Your task to perform on an android device: Clear all items from cart on newegg. Add razer huntsman to the cart on newegg, then select checkout. Image 0: 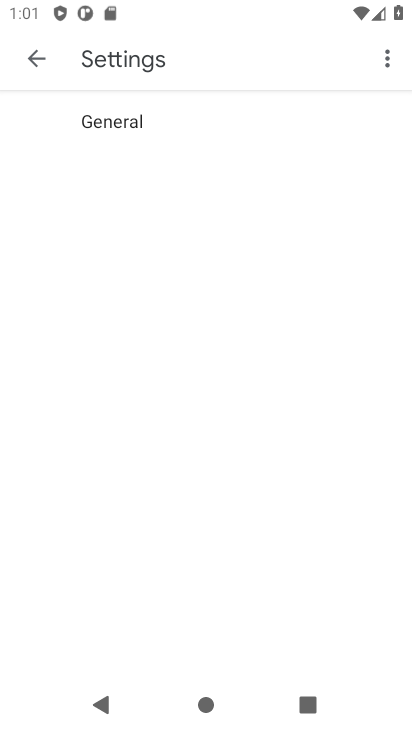
Step 0: press home button
Your task to perform on an android device: Clear all items from cart on newegg. Add razer huntsman to the cart on newegg, then select checkout. Image 1: 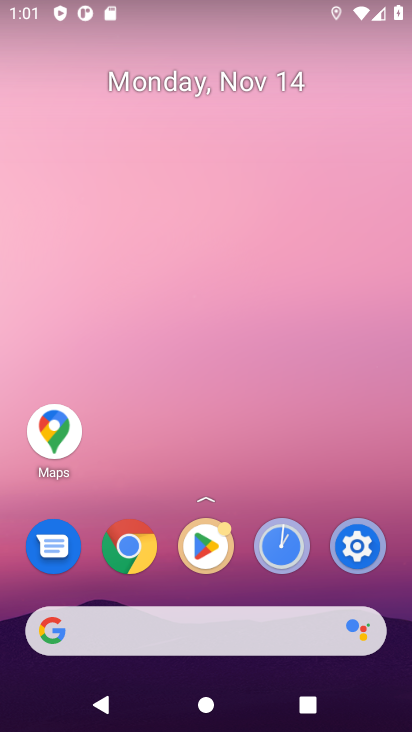
Step 1: drag from (117, 529) to (202, 0)
Your task to perform on an android device: Clear all items from cart on newegg. Add razer huntsman to the cart on newegg, then select checkout. Image 2: 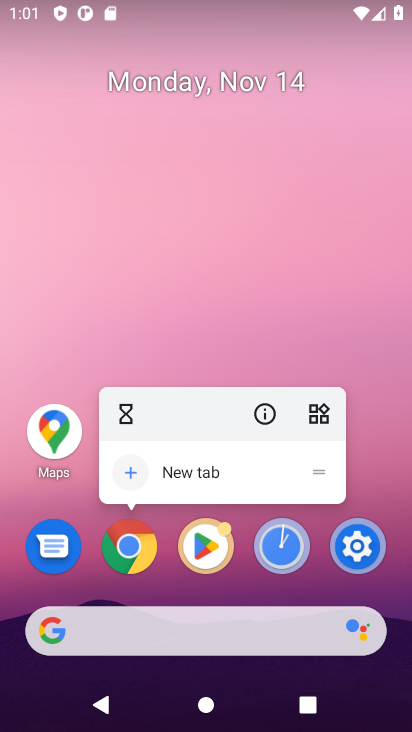
Step 2: click (252, 256)
Your task to perform on an android device: Clear all items from cart on newegg. Add razer huntsman to the cart on newegg, then select checkout. Image 3: 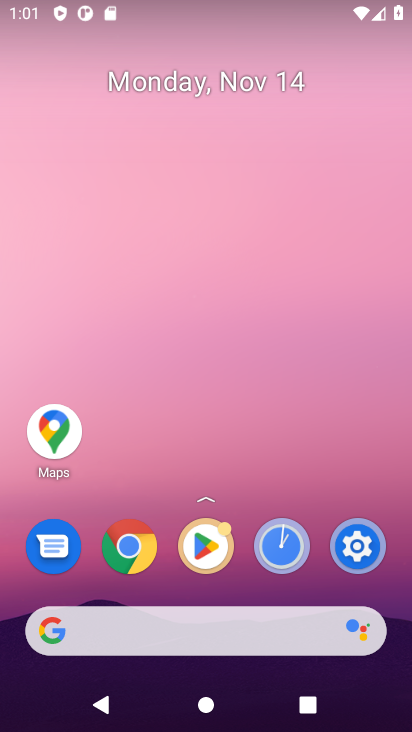
Step 3: drag from (183, 537) to (246, 3)
Your task to perform on an android device: Clear all items from cart on newegg. Add razer huntsman to the cart on newegg, then select checkout. Image 4: 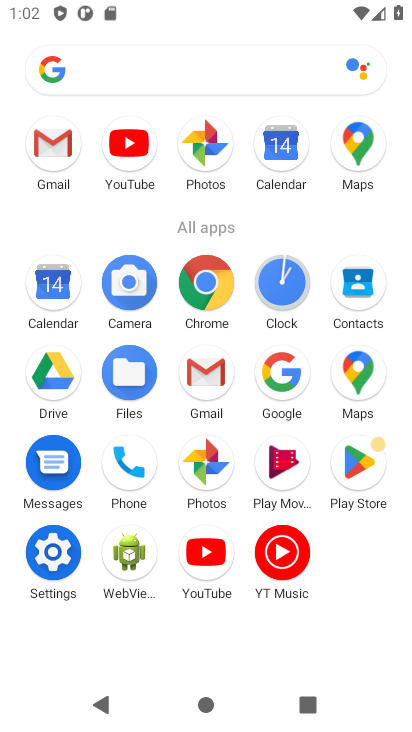
Step 4: click (213, 285)
Your task to perform on an android device: Clear all items from cart on newegg. Add razer huntsman to the cart on newegg, then select checkout. Image 5: 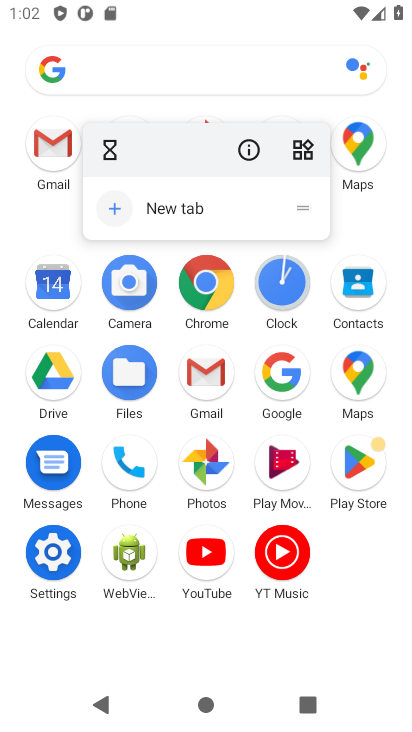
Step 5: click (198, 274)
Your task to perform on an android device: Clear all items from cart on newegg. Add razer huntsman to the cart on newegg, then select checkout. Image 6: 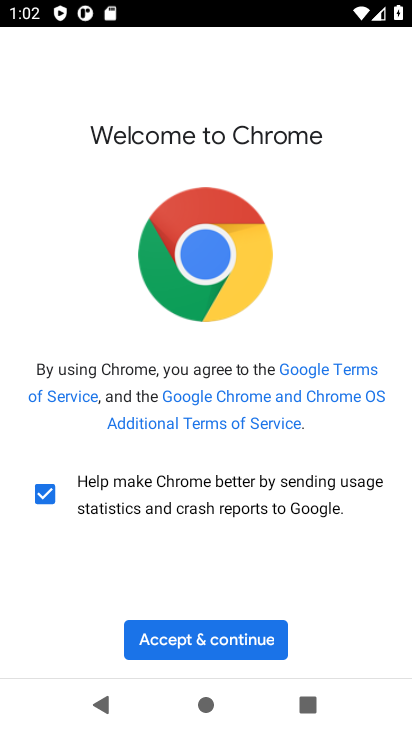
Step 6: click (153, 645)
Your task to perform on an android device: Clear all items from cart on newegg. Add razer huntsman to the cart on newegg, then select checkout. Image 7: 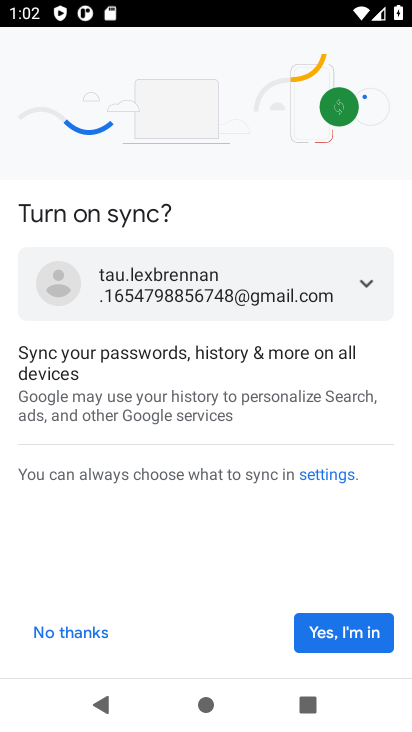
Step 7: click (326, 634)
Your task to perform on an android device: Clear all items from cart on newegg. Add razer huntsman to the cart on newegg, then select checkout. Image 8: 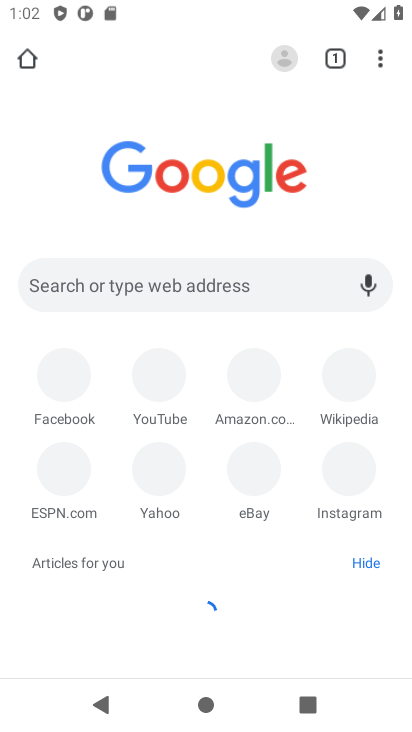
Step 8: click (66, 298)
Your task to perform on an android device: Clear all items from cart on newegg. Add razer huntsman to the cart on newegg, then select checkout. Image 9: 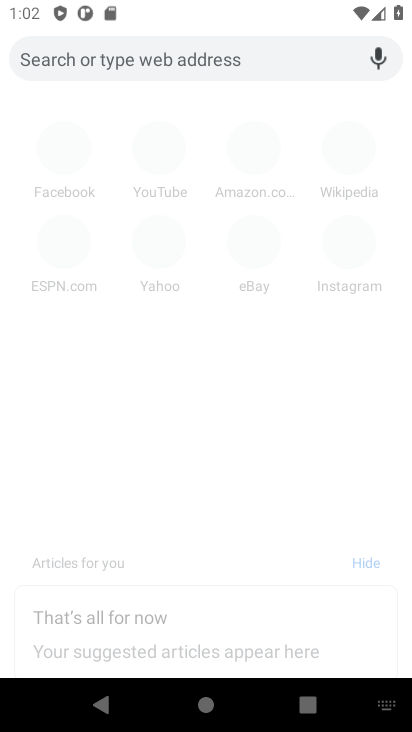
Step 9: type "newegg"
Your task to perform on an android device: Clear all items from cart on newegg. Add razer huntsman to the cart on newegg, then select checkout. Image 10: 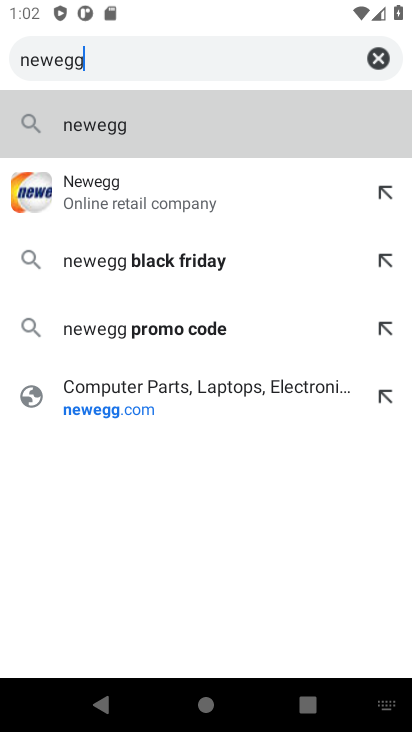
Step 10: press enter
Your task to perform on an android device: Clear all items from cart on newegg. Add razer huntsman to the cart on newegg, then select checkout. Image 11: 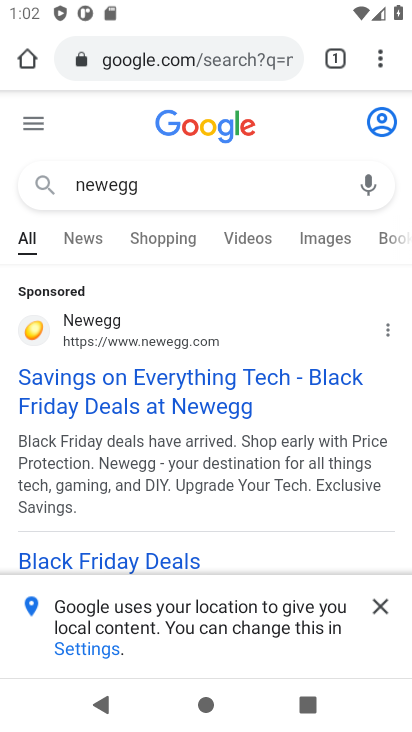
Step 11: click (74, 320)
Your task to perform on an android device: Clear all items from cart on newegg. Add razer huntsman to the cart on newegg, then select checkout. Image 12: 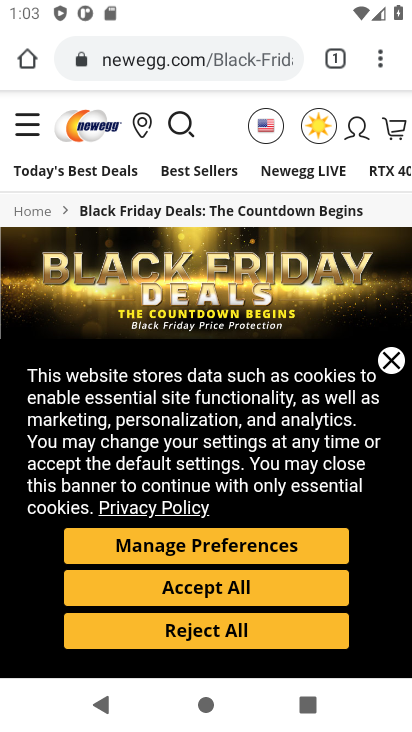
Step 12: click (190, 584)
Your task to perform on an android device: Clear all items from cart on newegg. Add razer huntsman to the cart on newegg, then select checkout. Image 13: 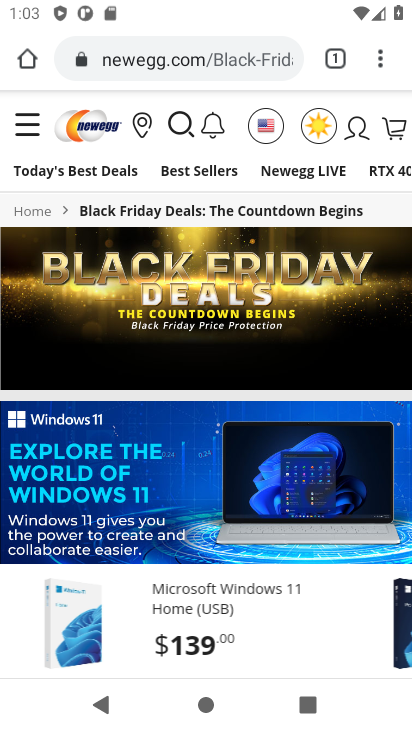
Step 13: click (184, 116)
Your task to perform on an android device: Clear all items from cart on newegg. Add razer huntsman to the cart on newegg, then select checkout. Image 14: 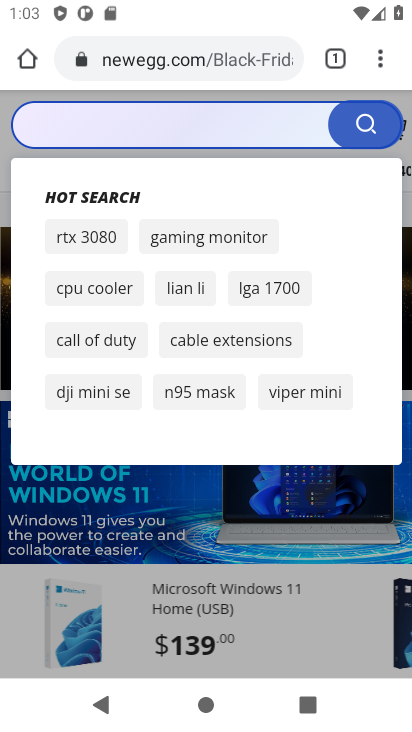
Step 14: type " Add razer huntsman"
Your task to perform on an android device: Clear all items from cart on newegg. Add razer huntsman to the cart on newegg, then select checkout. Image 15: 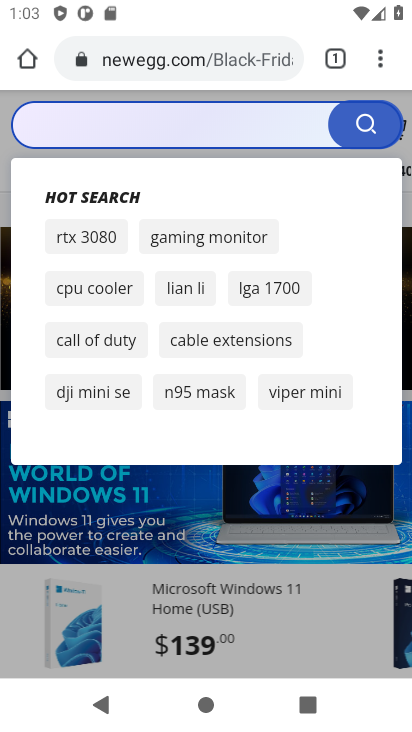
Step 15: press enter
Your task to perform on an android device: Clear all items from cart on newegg. Add razer huntsman to the cart on newegg, then select checkout. Image 16: 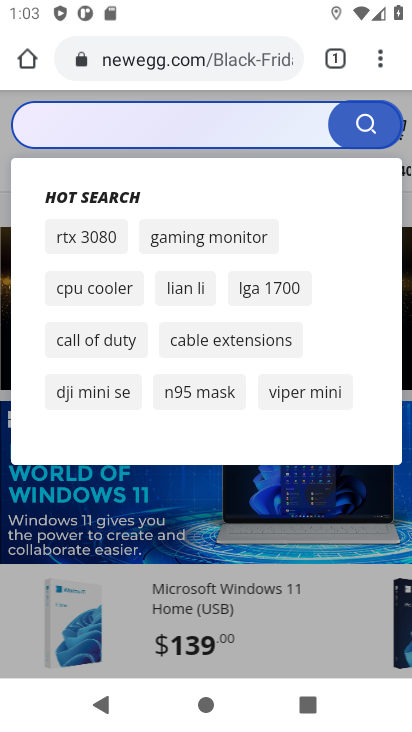
Step 16: click (206, 141)
Your task to perform on an android device: Clear all items from cart on newegg. Add razer huntsman to the cart on newegg, then select checkout. Image 17: 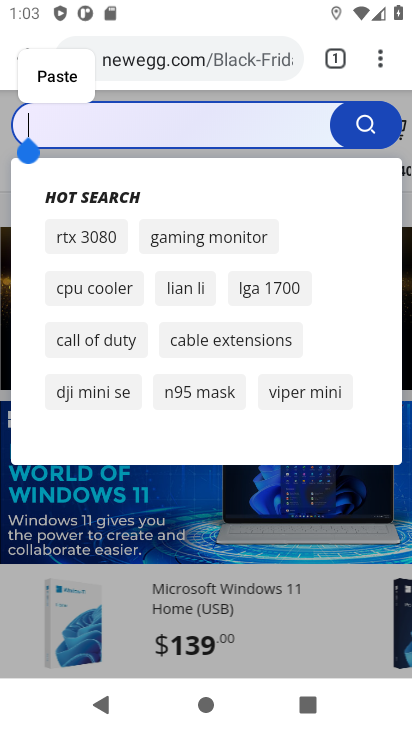
Step 17: click (35, 81)
Your task to perform on an android device: Clear all items from cart on newegg. Add razer huntsman to the cart on newegg, then select checkout. Image 18: 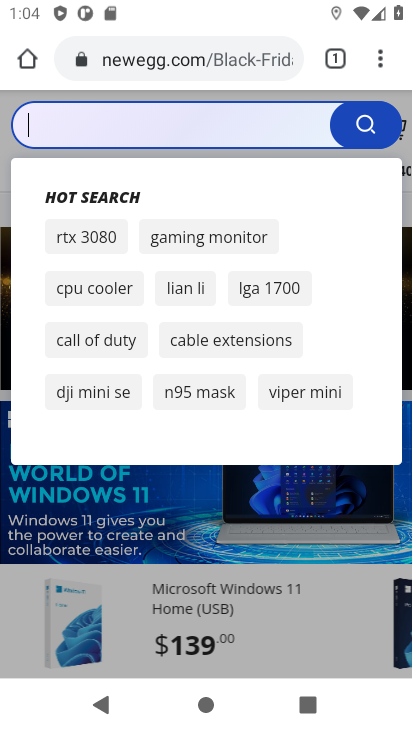
Step 18: drag from (179, 609) to (203, 366)
Your task to perform on an android device: Clear all items from cart on newegg. Add razer huntsman to the cart on newegg, then select checkout. Image 19: 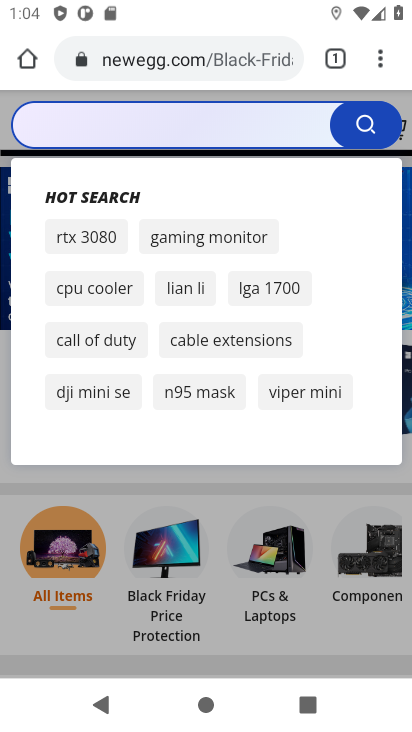
Step 19: type "razer huntsman"
Your task to perform on an android device: Clear all items from cart on newegg. Add razer huntsman to the cart on newegg, then select checkout. Image 20: 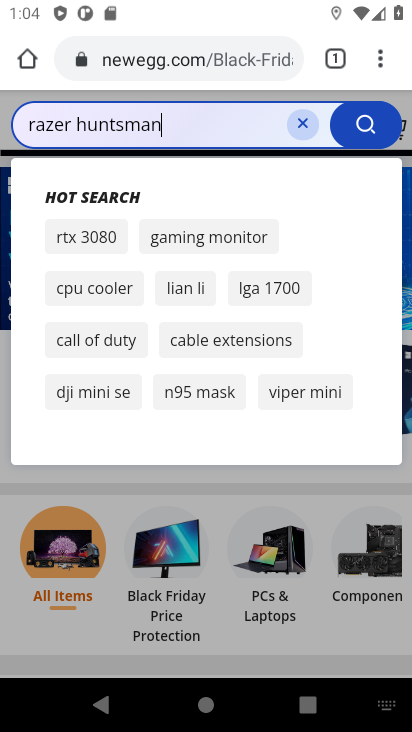
Step 20: press enter
Your task to perform on an android device: Clear all items from cart on newegg. Add razer huntsman to the cart on newegg, then select checkout. Image 21: 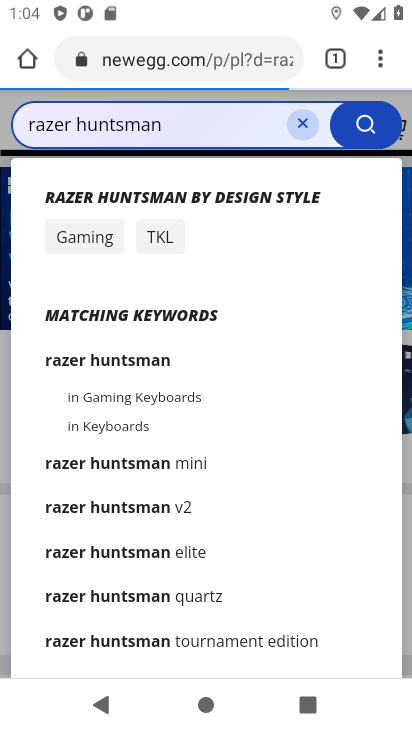
Step 21: click (355, 124)
Your task to perform on an android device: Clear all items from cart on newegg. Add razer huntsman to the cart on newegg, then select checkout. Image 22: 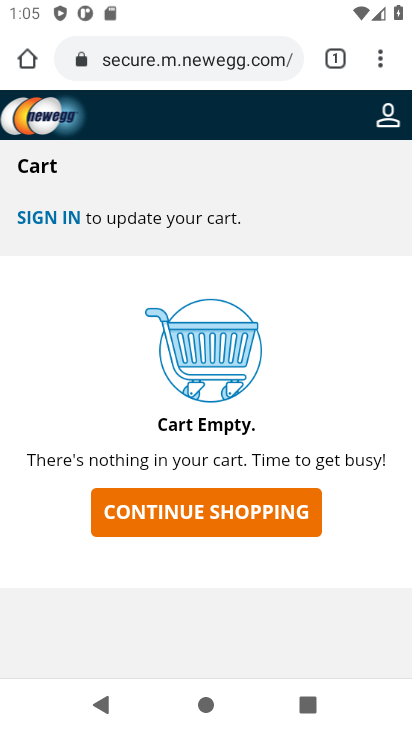
Step 22: drag from (323, 305) to (338, 464)
Your task to perform on an android device: Clear all items from cart on newegg. Add razer huntsman to the cart on newegg, then select checkout. Image 23: 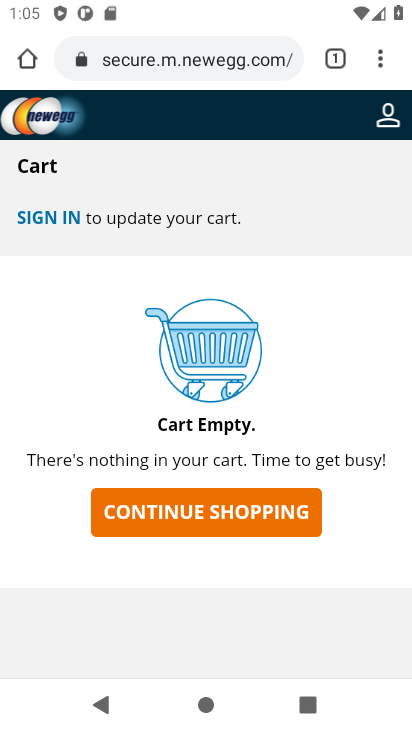
Step 23: press back button
Your task to perform on an android device: Clear all items from cart on newegg. Add razer huntsman to the cart on newegg, then select checkout. Image 24: 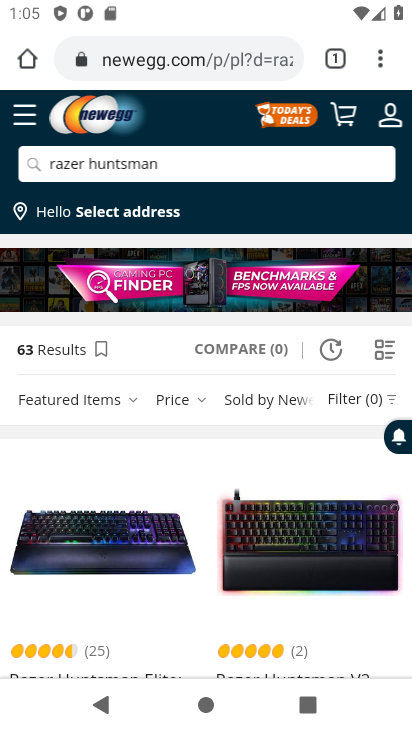
Step 24: drag from (102, 551) to (147, 305)
Your task to perform on an android device: Clear all items from cart on newegg. Add razer huntsman to the cart on newegg, then select checkout. Image 25: 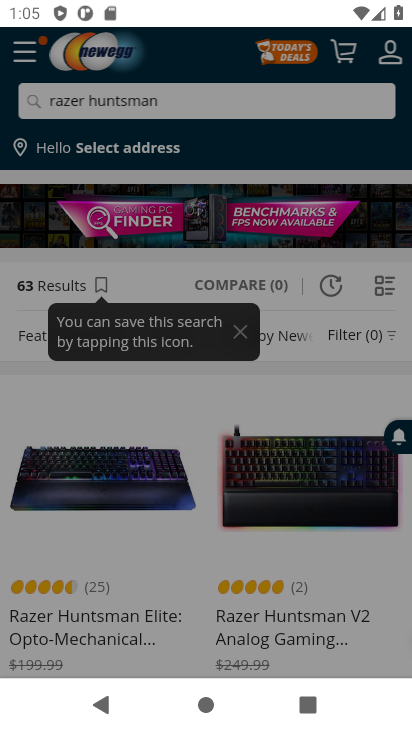
Step 25: drag from (91, 601) to (93, 331)
Your task to perform on an android device: Clear all items from cart on newegg. Add razer huntsman to the cart on newegg, then select checkout. Image 26: 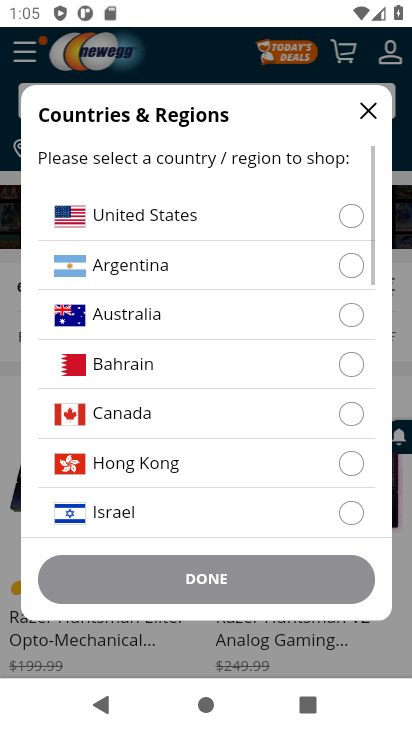
Step 26: click (229, 199)
Your task to perform on an android device: Clear all items from cart on newegg. Add razer huntsman to the cart on newegg, then select checkout. Image 27: 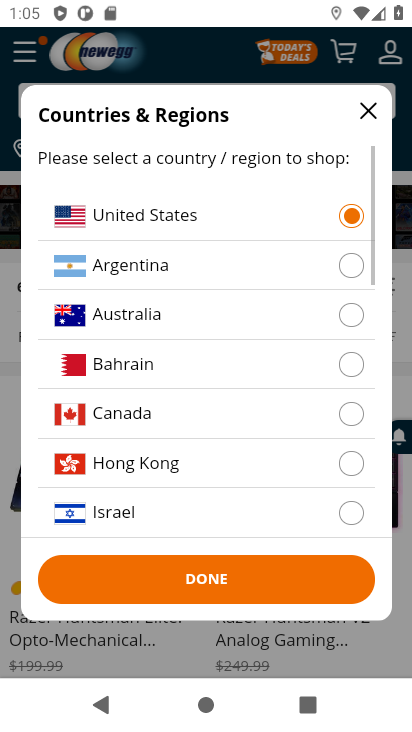
Step 27: click (207, 586)
Your task to perform on an android device: Clear all items from cart on newegg. Add razer huntsman to the cart on newegg, then select checkout. Image 28: 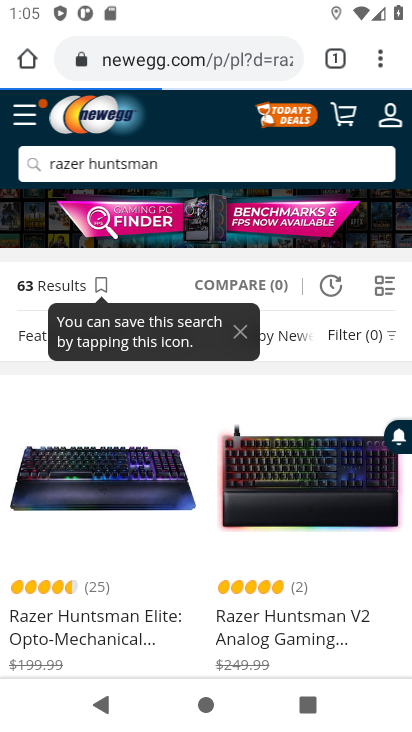
Step 28: click (86, 629)
Your task to perform on an android device: Clear all items from cart on newegg. Add razer huntsman to the cart on newegg, then select checkout. Image 29: 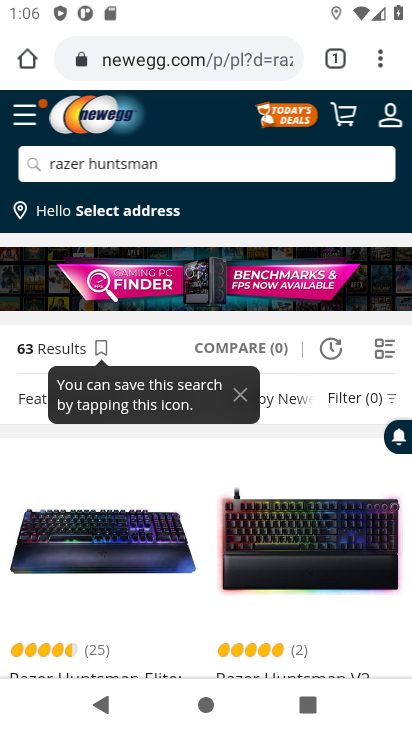
Step 29: drag from (93, 587) to (127, 261)
Your task to perform on an android device: Clear all items from cart on newegg. Add razer huntsman to the cart on newegg, then select checkout. Image 30: 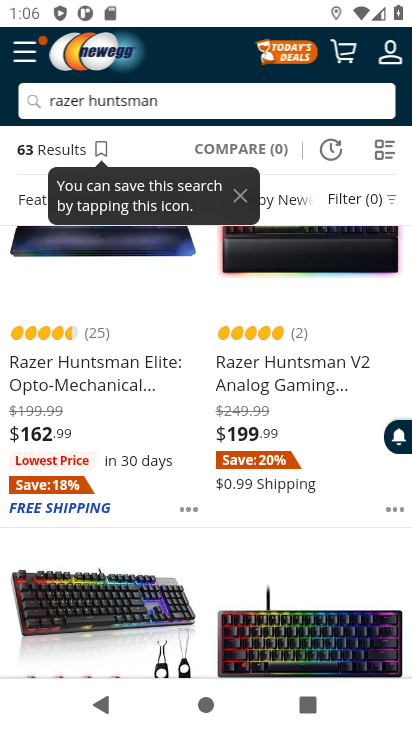
Step 30: drag from (140, 392) to (150, 634)
Your task to perform on an android device: Clear all items from cart on newegg. Add razer huntsman to the cart on newegg, then select checkout. Image 31: 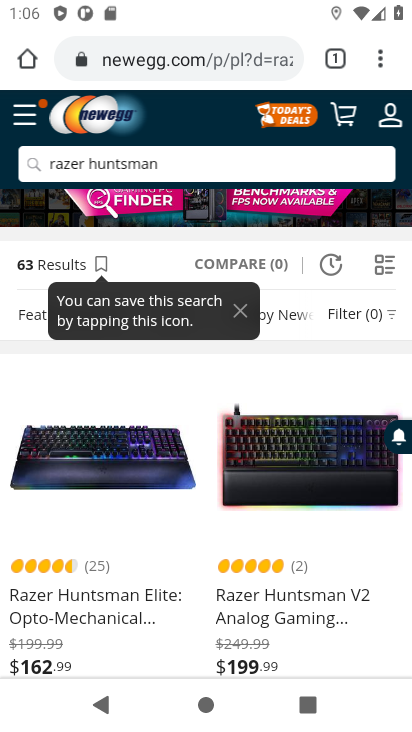
Step 31: click (103, 603)
Your task to perform on an android device: Clear all items from cart on newegg. Add razer huntsman to the cart on newegg, then select checkout. Image 32: 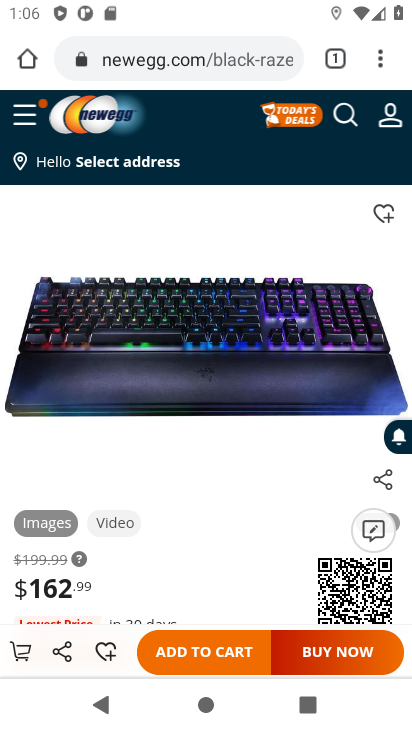
Step 32: click (193, 655)
Your task to perform on an android device: Clear all items from cart on newegg. Add razer huntsman to the cart on newegg, then select checkout. Image 33: 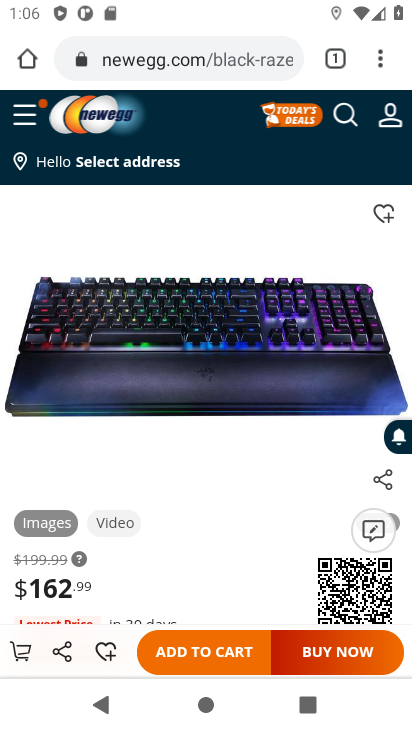
Step 33: click (194, 651)
Your task to perform on an android device: Clear all items from cart on newegg. Add razer huntsman to the cart on newegg, then select checkout. Image 34: 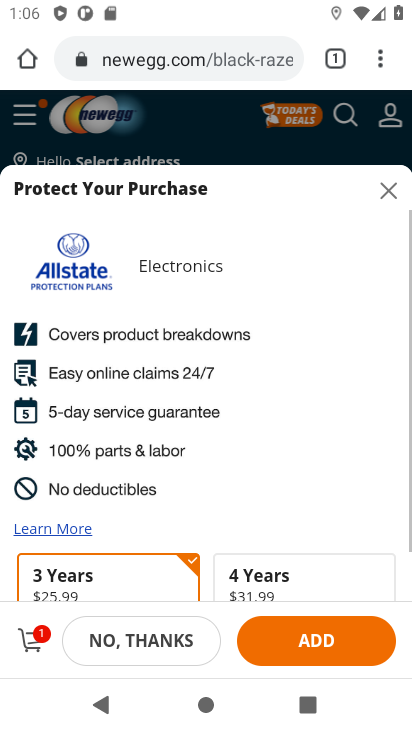
Step 34: click (333, 632)
Your task to perform on an android device: Clear all items from cart on newegg. Add razer huntsman to the cart on newegg, then select checkout. Image 35: 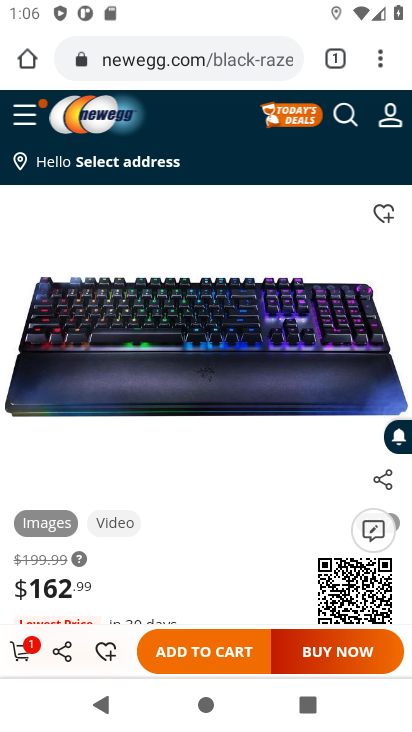
Step 35: click (27, 645)
Your task to perform on an android device: Clear all items from cart on newegg. Add razer huntsman to the cart on newegg, then select checkout. Image 36: 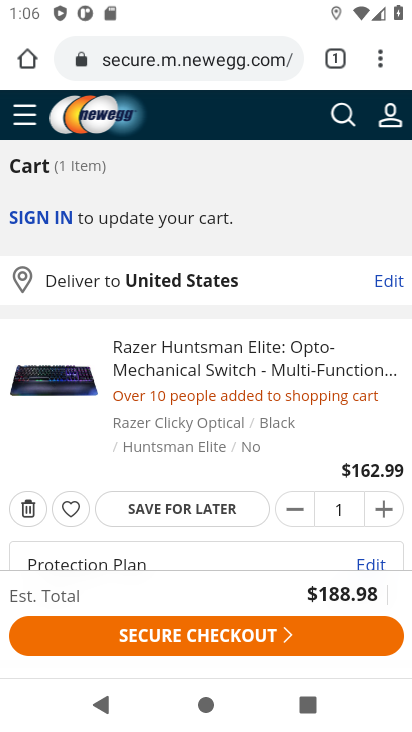
Step 36: click (220, 634)
Your task to perform on an android device: Clear all items from cart on newegg. Add razer huntsman to the cart on newegg, then select checkout. Image 37: 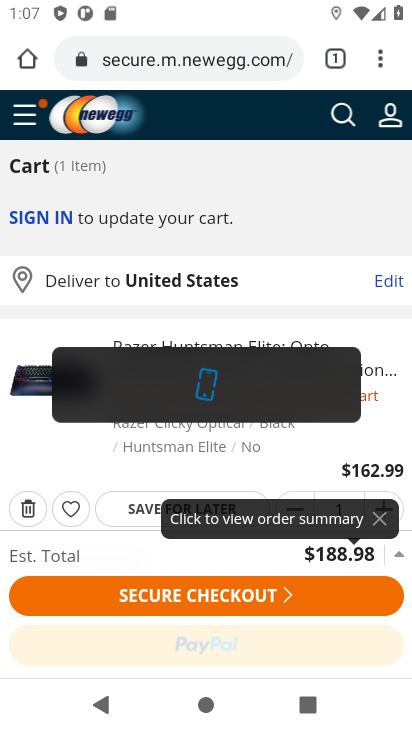
Step 37: click (212, 604)
Your task to perform on an android device: Clear all items from cart on newegg. Add razer huntsman to the cart on newegg, then select checkout. Image 38: 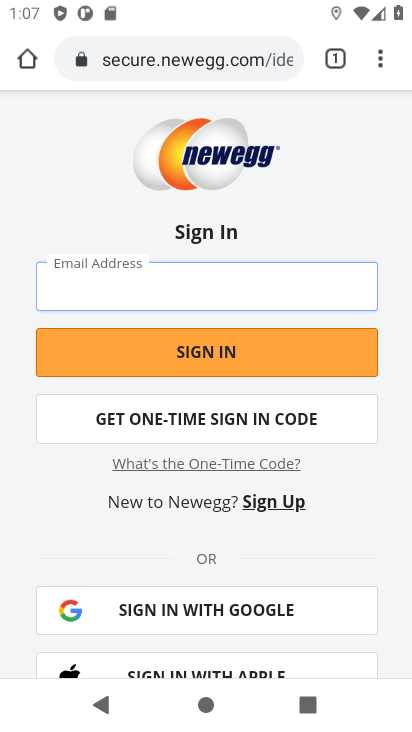
Step 38: task complete